Your task to perform on an android device: turn pop-ups off in chrome Image 0: 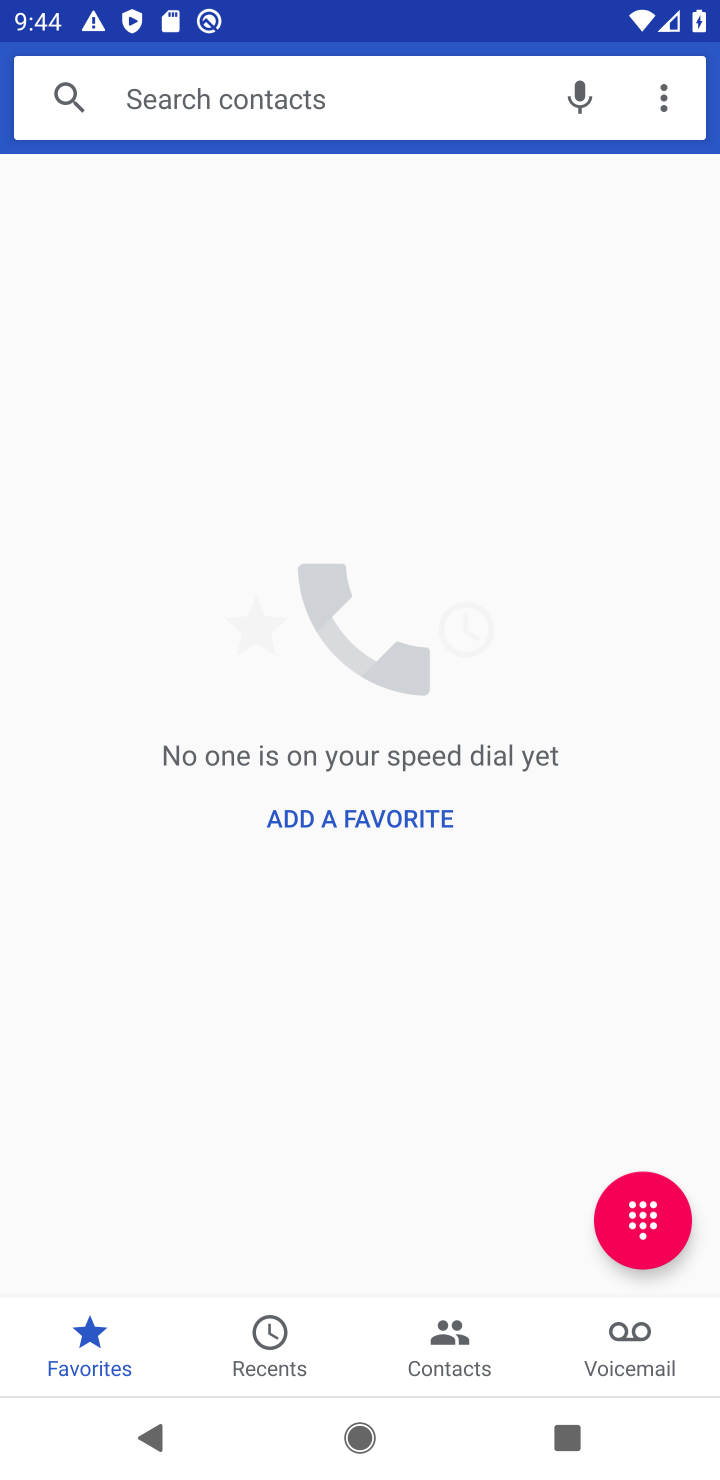
Step 0: press home button
Your task to perform on an android device: turn pop-ups off in chrome Image 1: 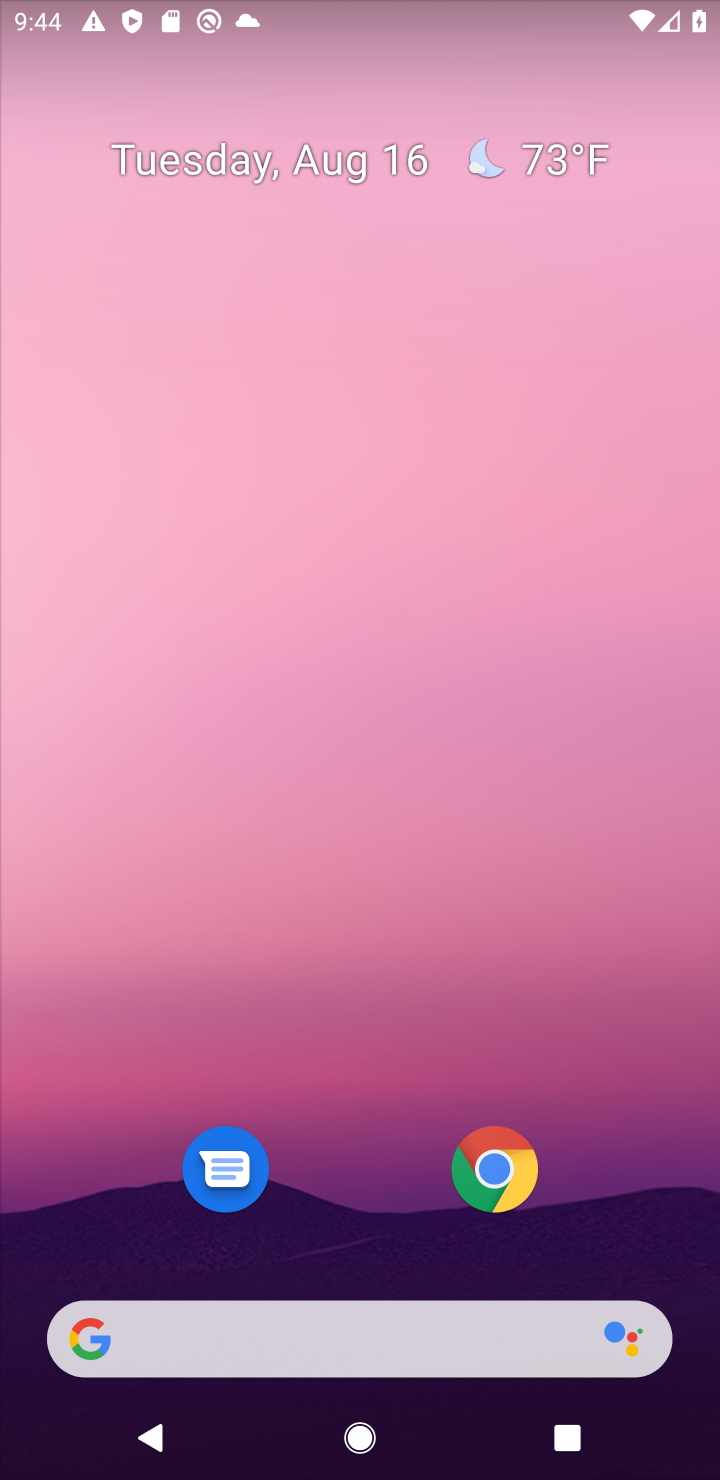
Step 1: click (483, 1173)
Your task to perform on an android device: turn pop-ups off in chrome Image 2: 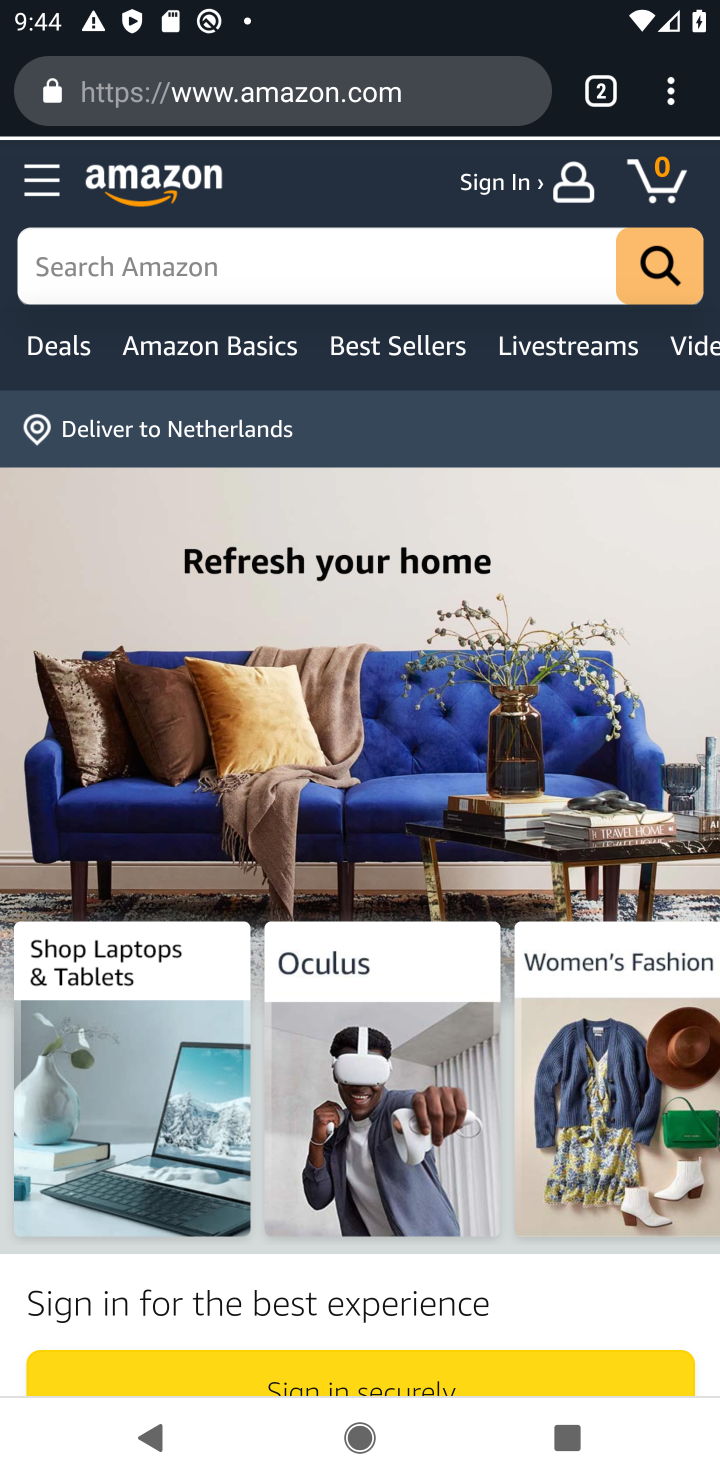
Step 2: click (667, 92)
Your task to perform on an android device: turn pop-ups off in chrome Image 3: 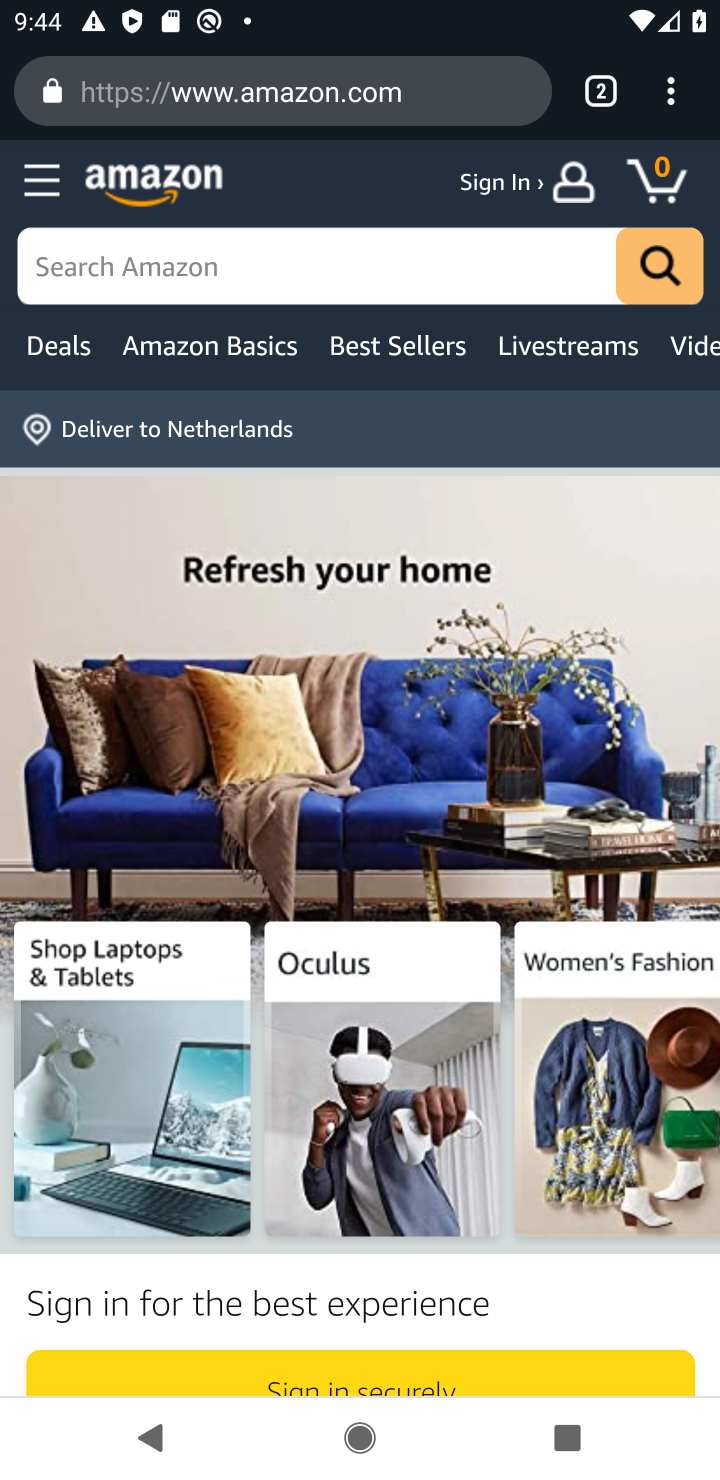
Step 3: click (667, 100)
Your task to perform on an android device: turn pop-ups off in chrome Image 4: 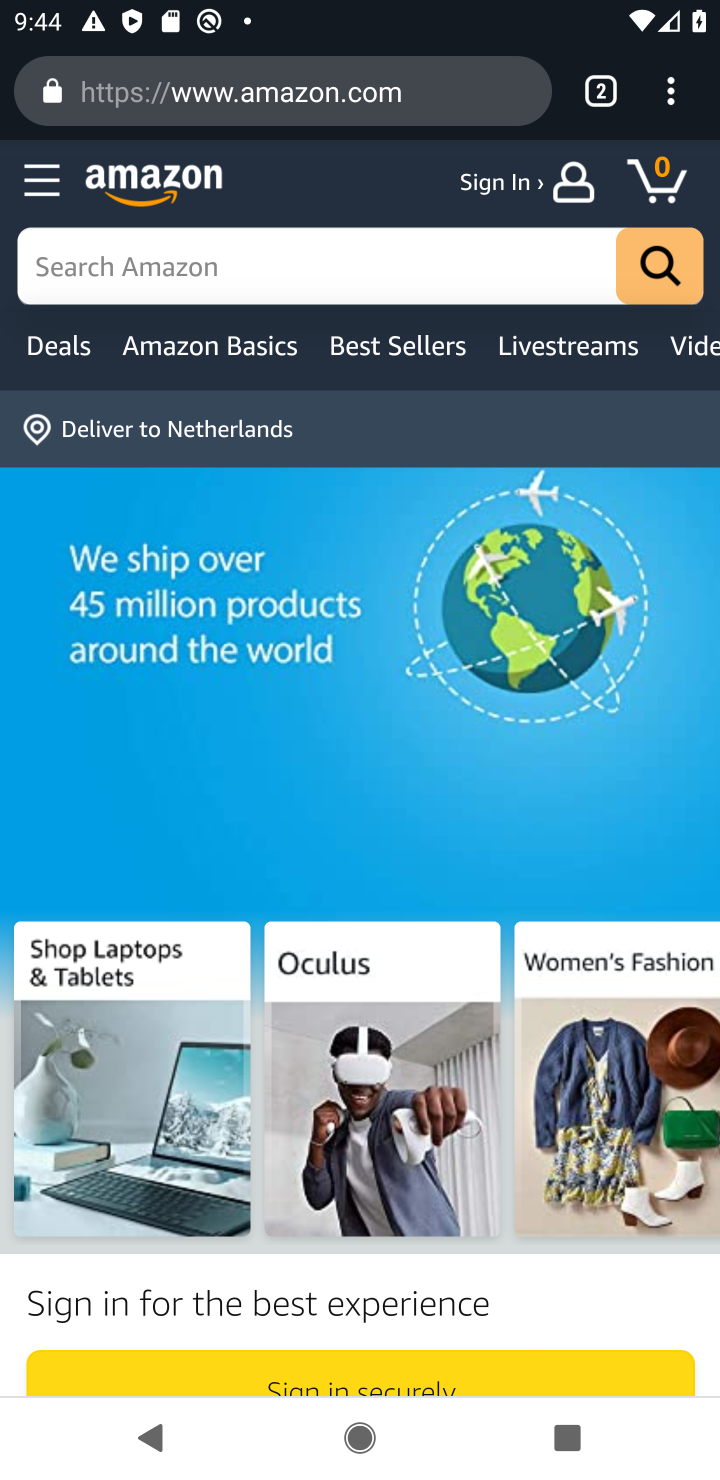
Step 4: click (667, 100)
Your task to perform on an android device: turn pop-ups off in chrome Image 5: 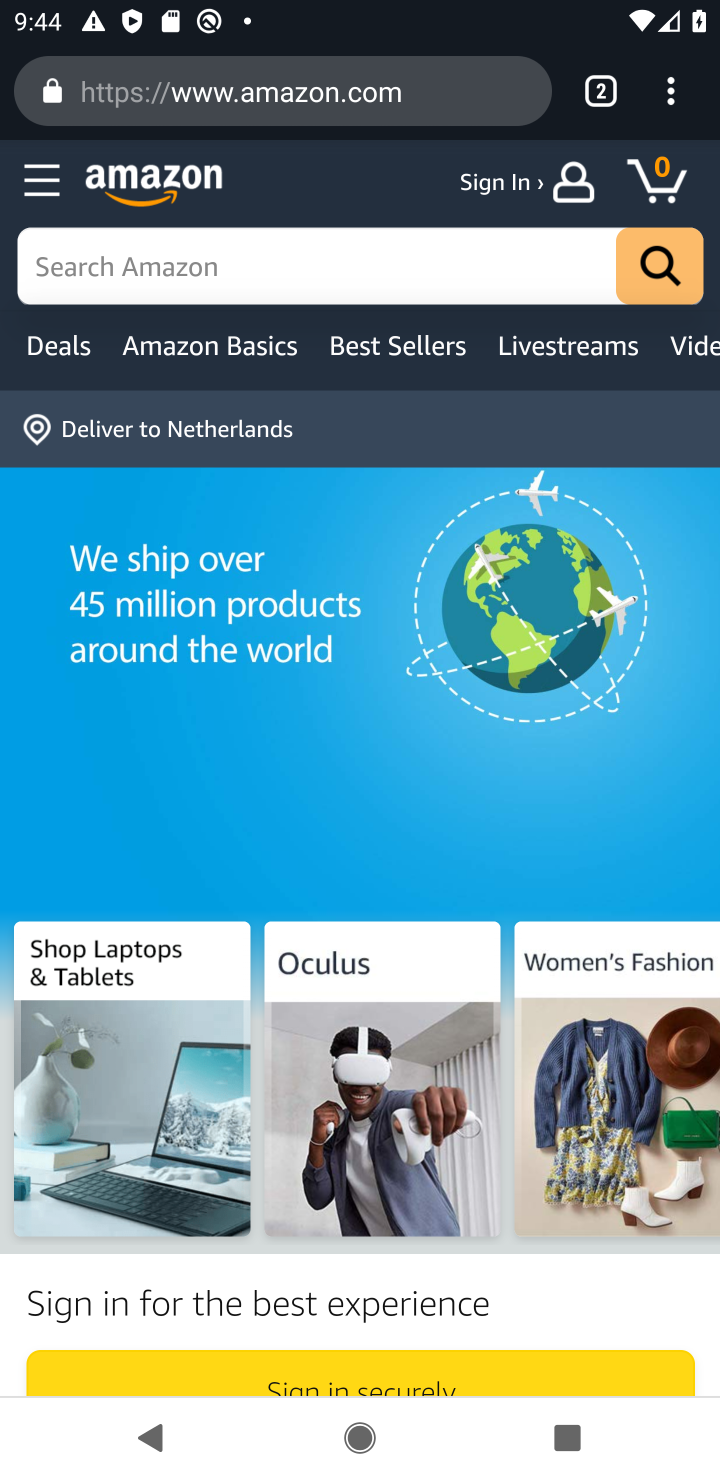
Step 5: click (667, 100)
Your task to perform on an android device: turn pop-ups off in chrome Image 6: 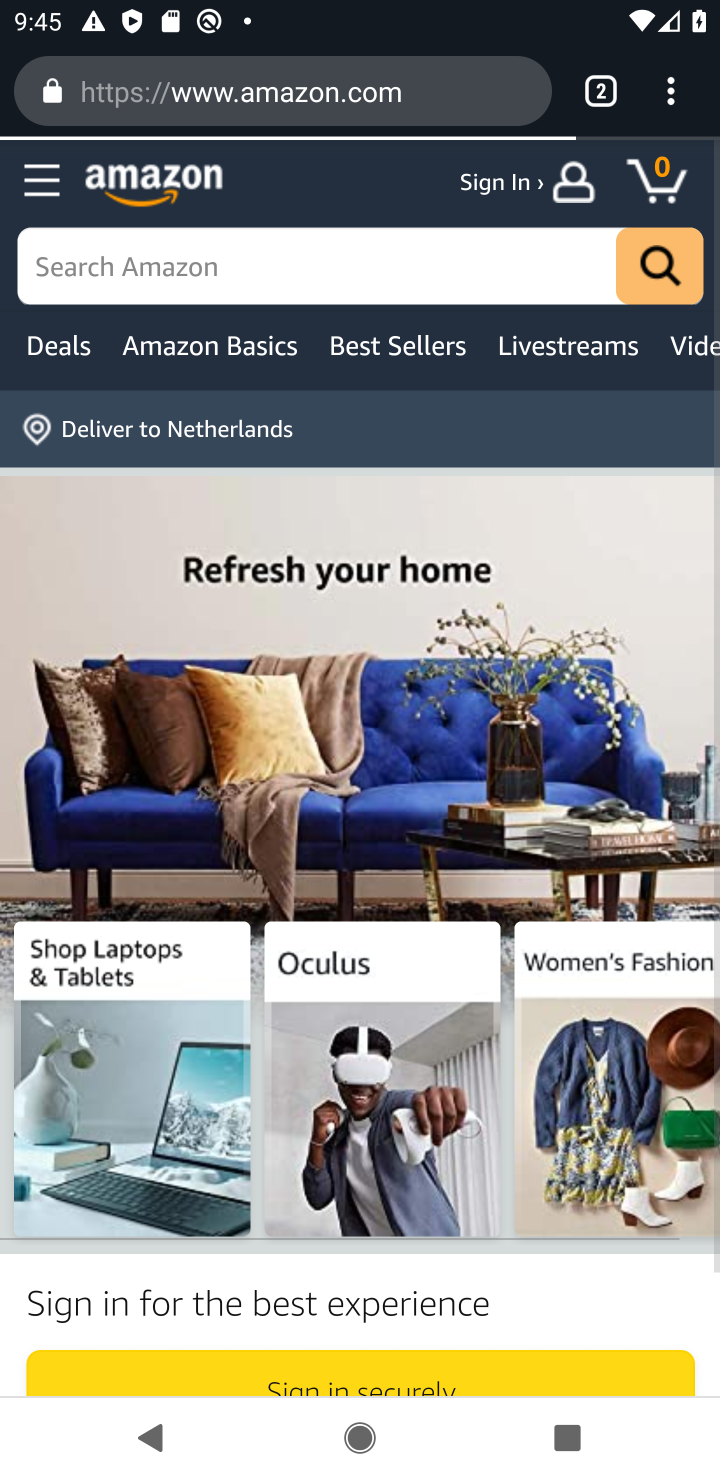
Step 6: click (667, 100)
Your task to perform on an android device: turn pop-ups off in chrome Image 7: 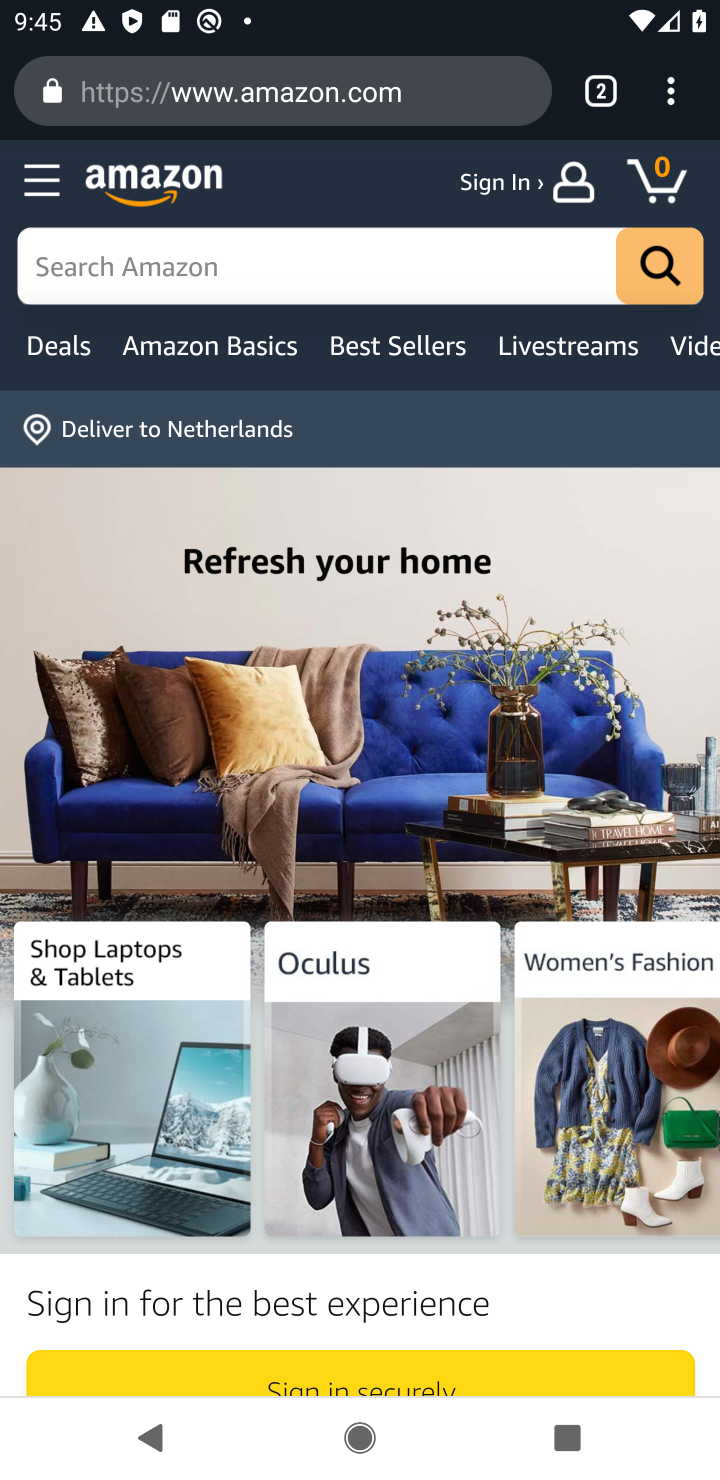
Step 7: click (667, 100)
Your task to perform on an android device: turn pop-ups off in chrome Image 8: 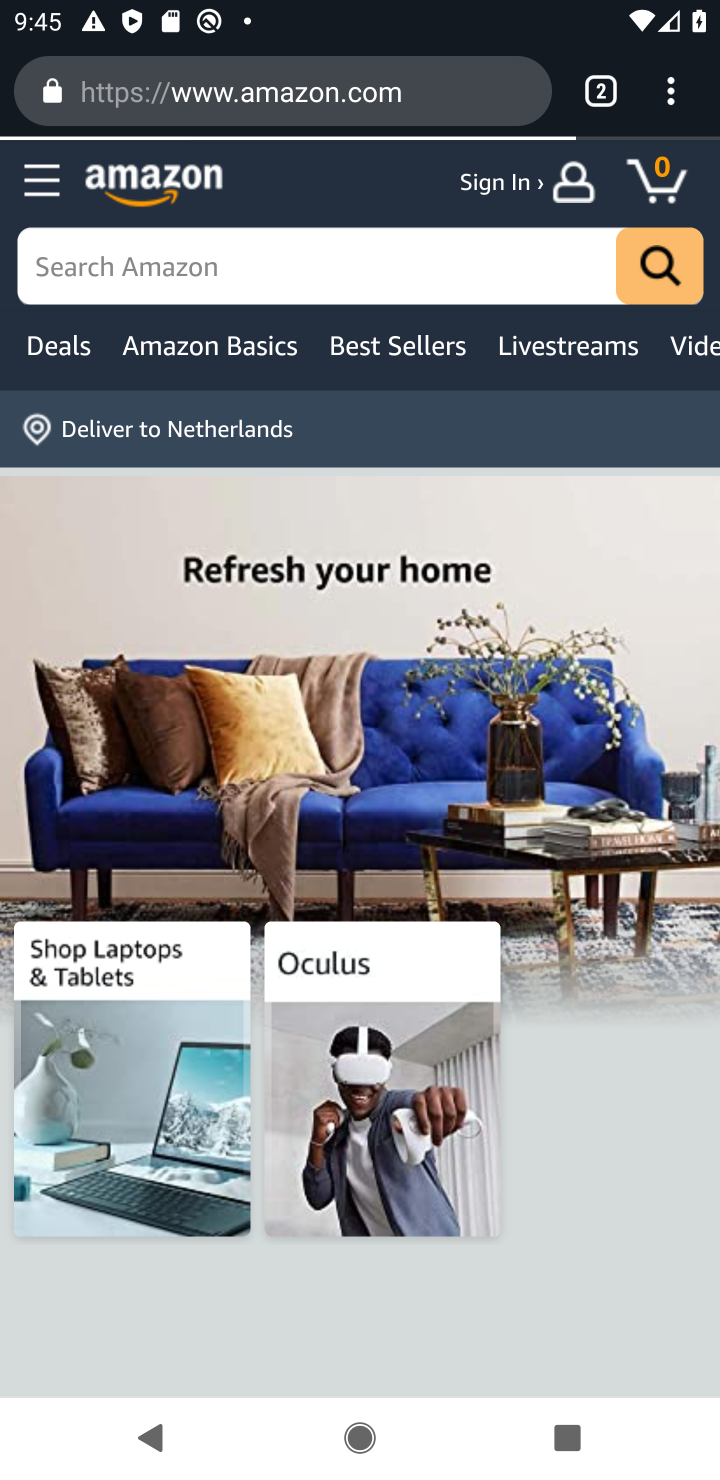
Step 8: task complete